Your task to perform on an android device: Open Amazon Image 0: 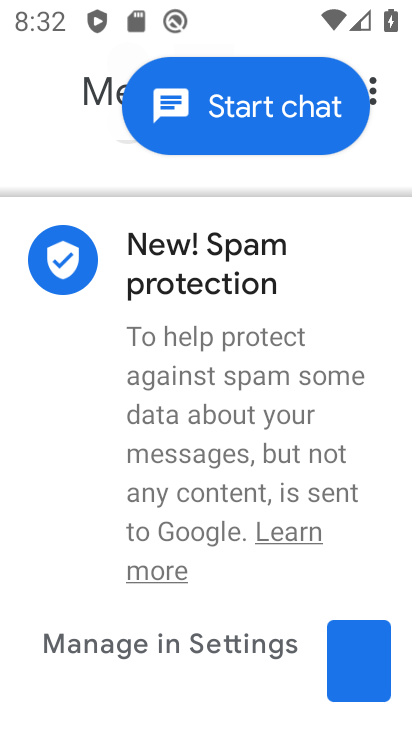
Step 0: press home button
Your task to perform on an android device: Open Amazon Image 1: 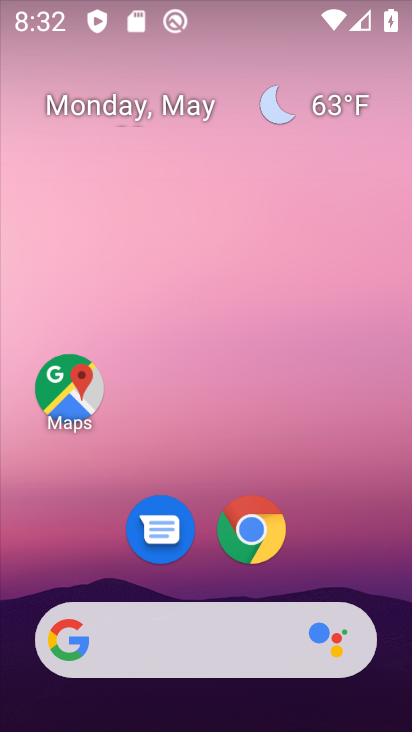
Step 1: click (253, 528)
Your task to perform on an android device: Open Amazon Image 2: 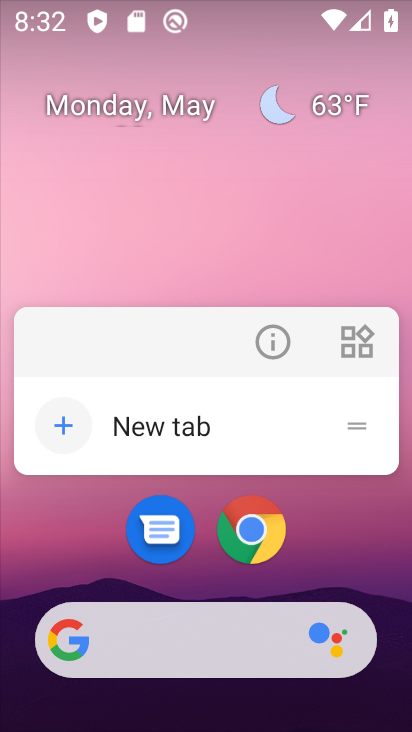
Step 2: click (249, 553)
Your task to perform on an android device: Open Amazon Image 3: 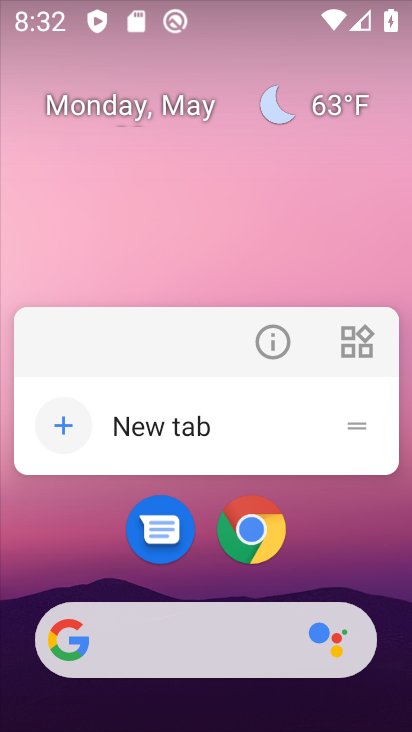
Step 3: click (258, 551)
Your task to perform on an android device: Open Amazon Image 4: 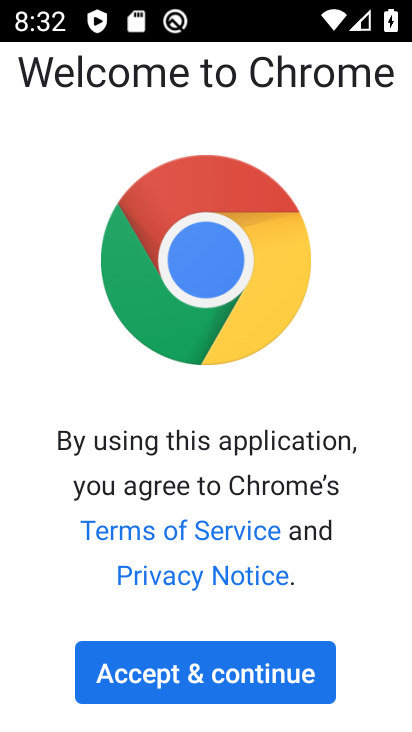
Step 4: click (279, 665)
Your task to perform on an android device: Open Amazon Image 5: 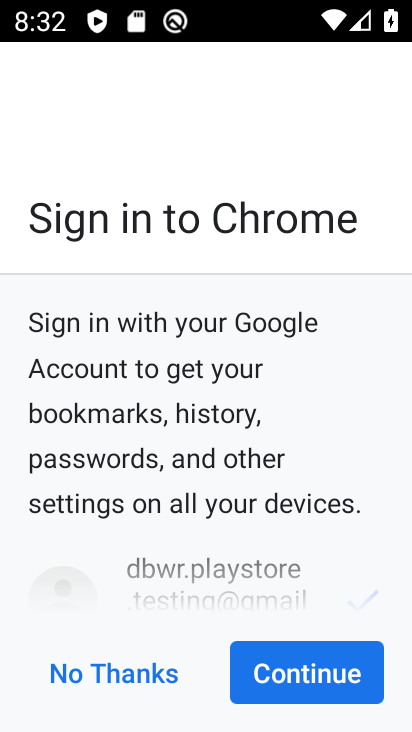
Step 5: click (330, 702)
Your task to perform on an android device: Open Amazon Image 6: 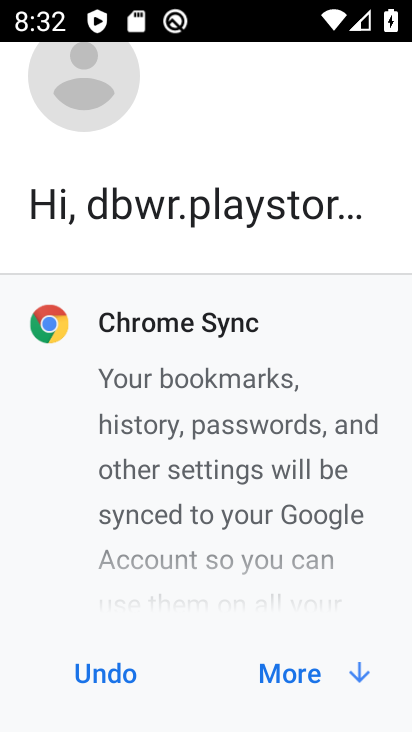
Step 6: click (333, 691)
Your task to perform on an android device: Open Amazon Image 7: 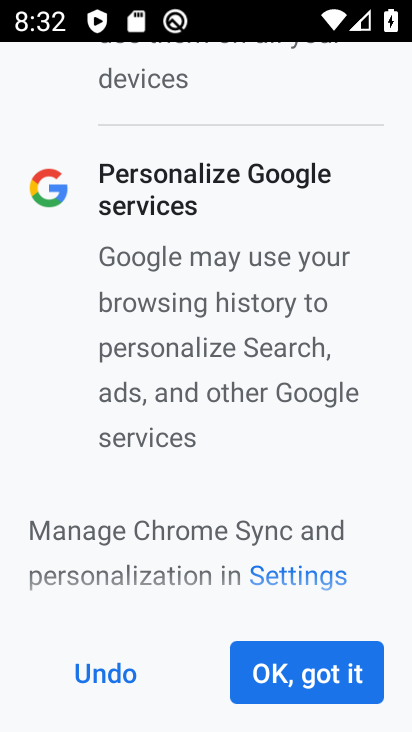
Step 7: click (333, 676)
Your task to perform on an android device: Open Amazon Image 8: 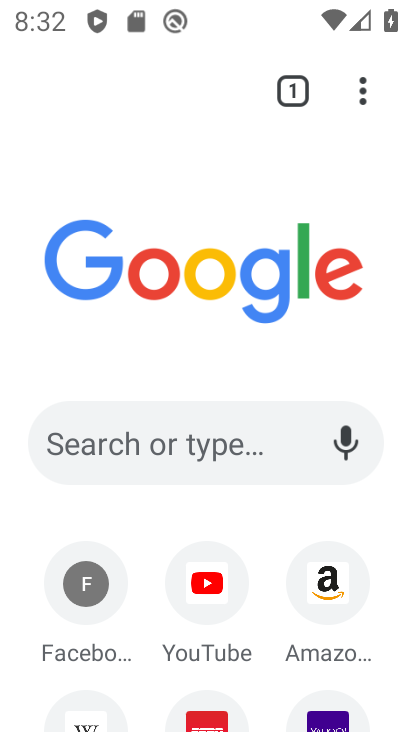
Step 8: click (341, 583)
Your task to perform on an android device: Open Amazon Image 9: 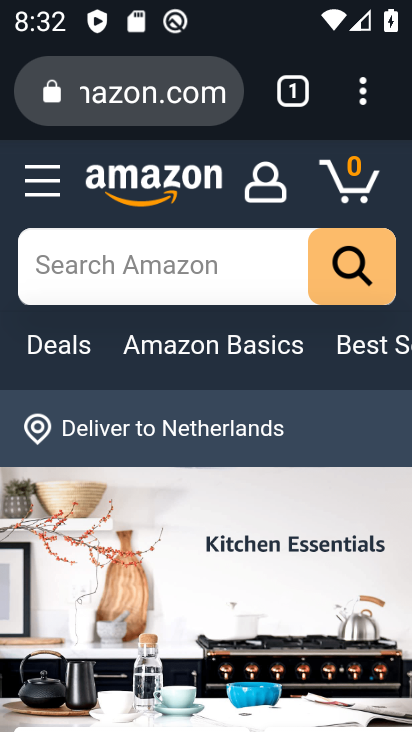
Step 9: task complete